Your task to perform on an android device: Open Google Chrome Image 0: 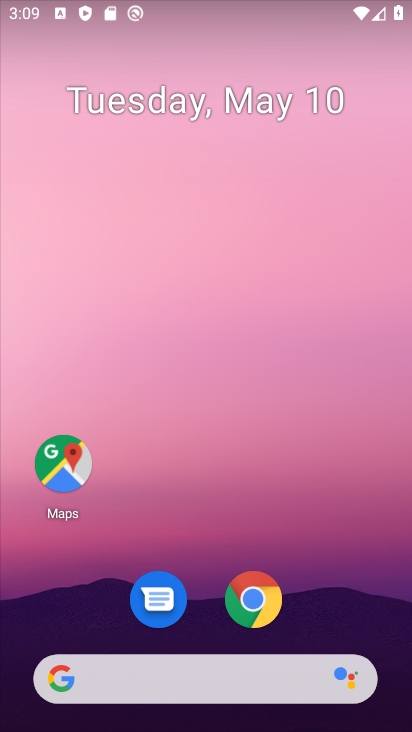
Step 0: click (265, 628)
Your task to perform on an android device: Open Google Chrome Image 1: 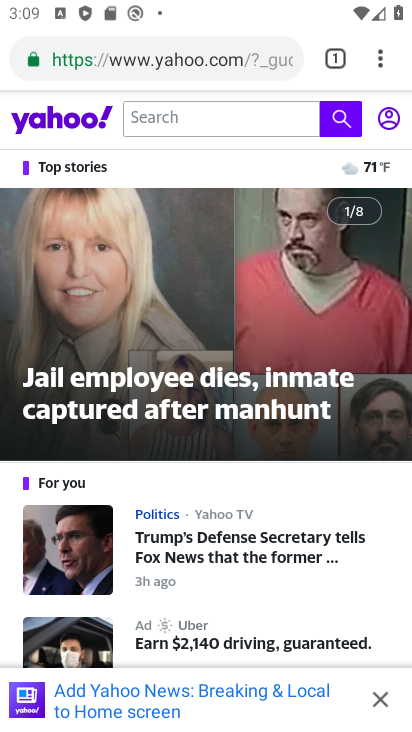
Step 1: task complete